Your task to perform on an android device: uninstall "Airtel Thanks" Image 0: 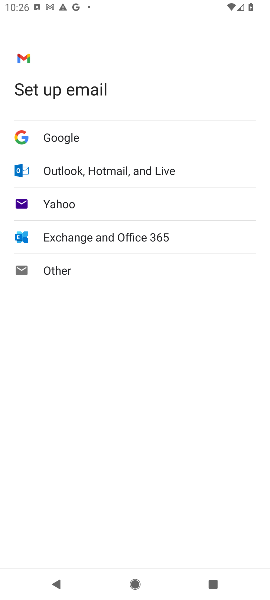
Step 0: press home button
Your task to perform on an android device: uninstall "Airtel Thanks" Image 1: 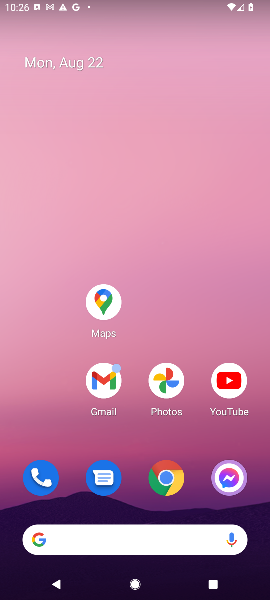
Step 1: task complete